Your task to perform on an android device: Go to Amazon Image 0: 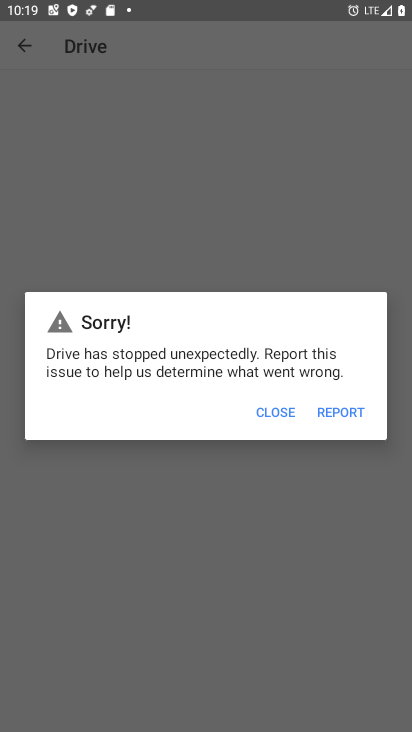
Step 0: press home button
Your task to perform on an android device: Go to Amazon Image 1: 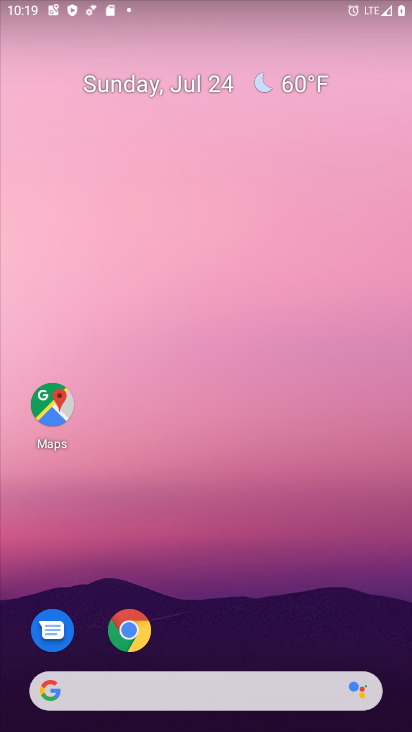
Step 1: click (133, 629)
Your task to perform on an android device: Go to Amazon Image 2: 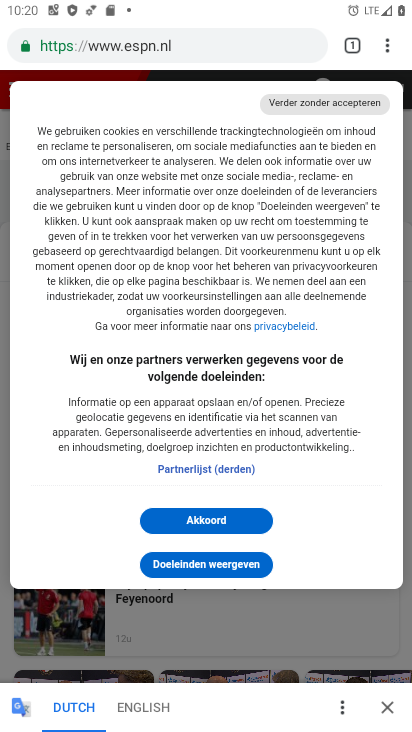
Step 2: click (161, 50)
Your task to perform on an android device: Go to Amazon Image 3: 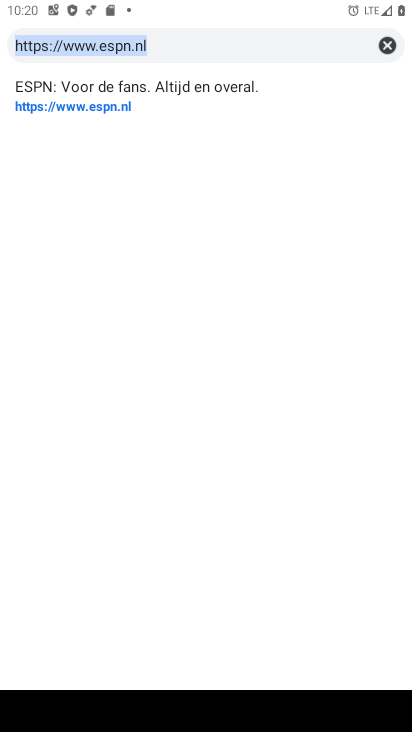
Step 3: type "Amazon"
Your task to perform on an android device: Go to Amazon Image 4: 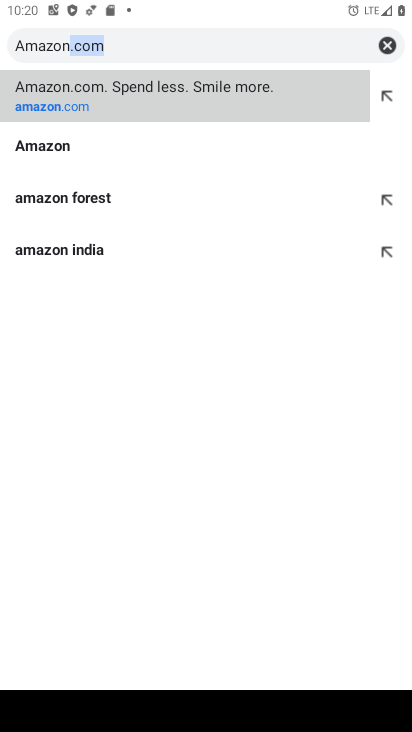
Step 4: click (114, 85)
Your task to perform on an android device: Go to Amazon Image 5: 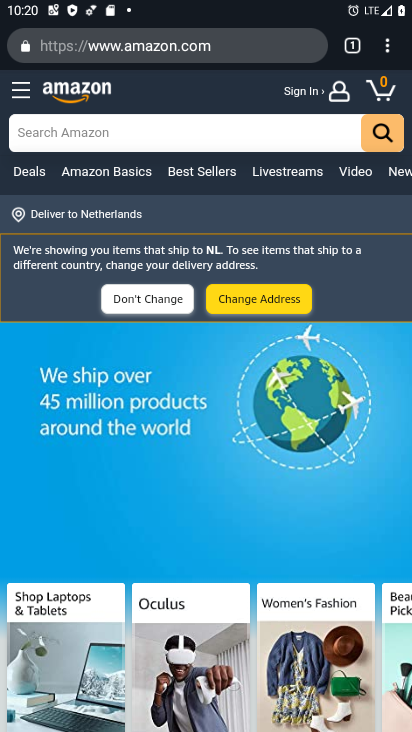
Step 5: task complete